Your task to perform on an android device: change the clock display to digital Image 0: 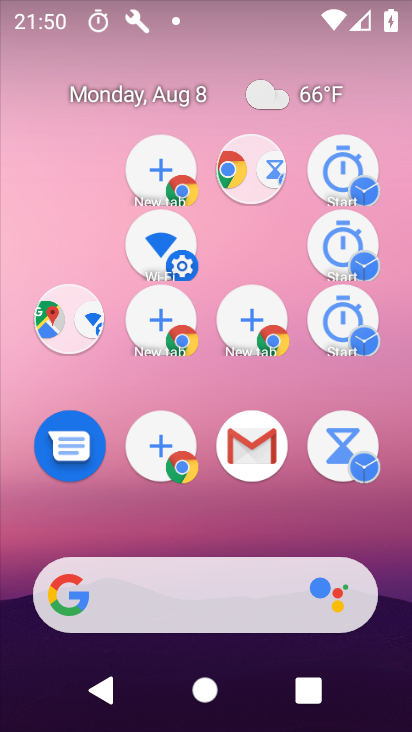
Step 0: click (239, 229)
Your task to perform on an android device: change the clock display to digital Image 1: 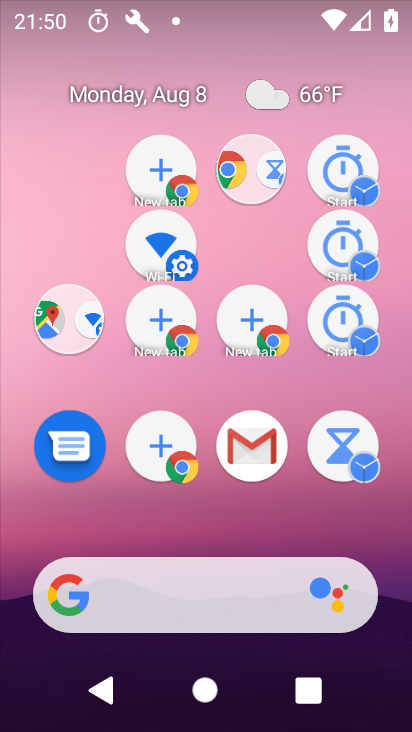
Step 1: drag from (266, 464) to (266, 202)
Your task to perform on an android device: change the clock display to digital Image 2: 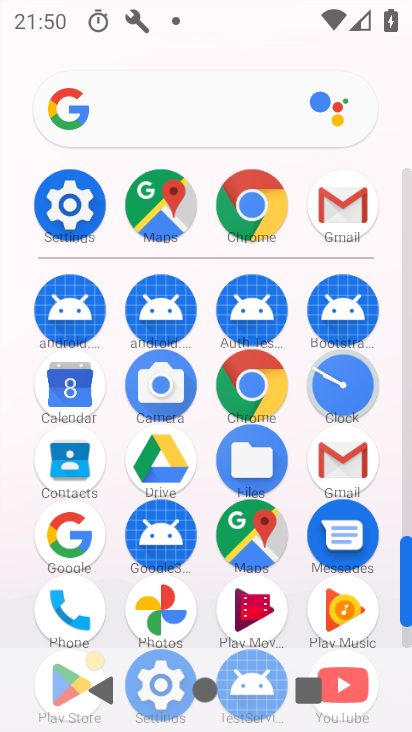
Step 2: click (70, 200)
Your task to perform on an android device: change the clock display to digital Image 3: 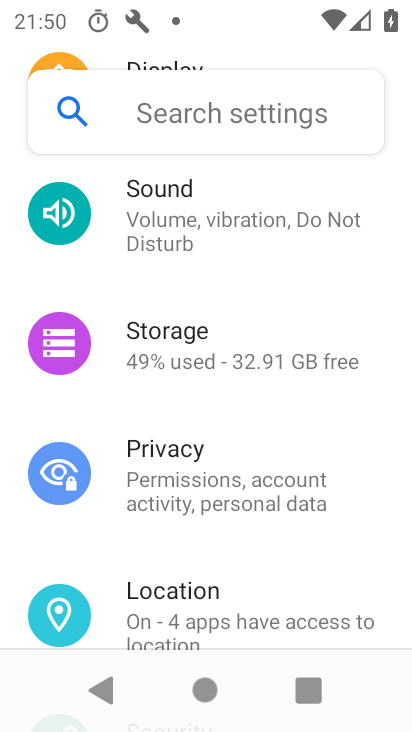
Step 3: press back button
Your task to perform on an android device: change the clock display to digital Image 4: 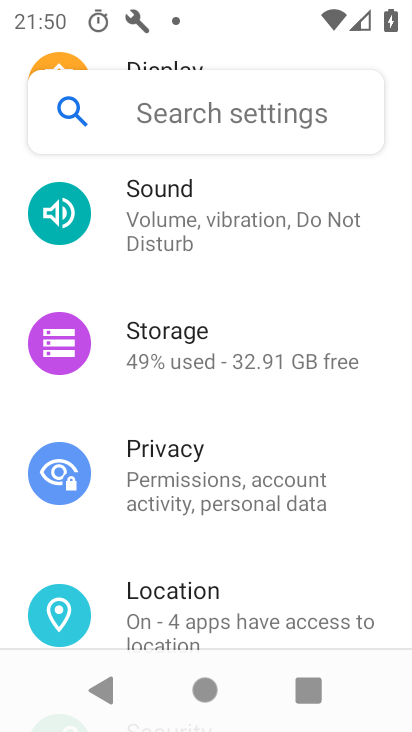
Step 4: press back button
Your task to perform on an android device: change the clock display to digital Image 5: 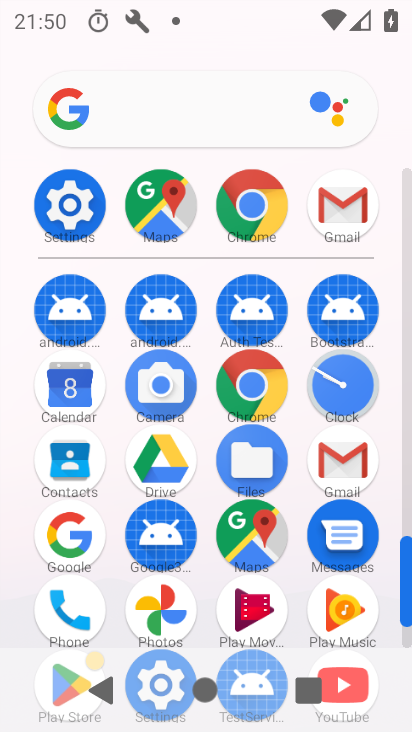
Step 5: press back button
Your task to perform on an android device: change the clock display to digital Image 6: 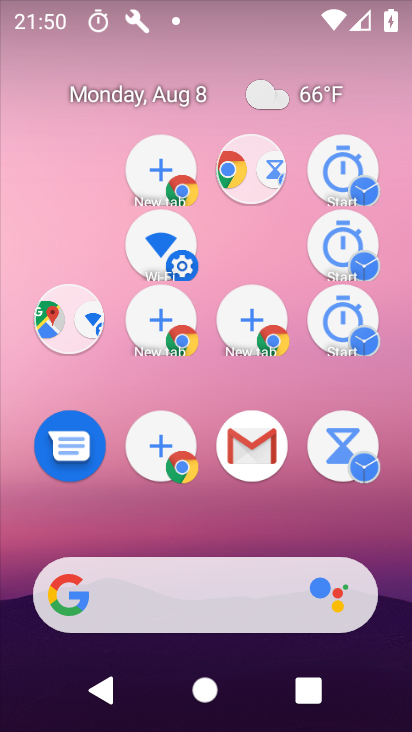
Step 6: drag from (195, 238) to (196, 166)
Your task to perform on an android device: change the clock display to digital Image 7: 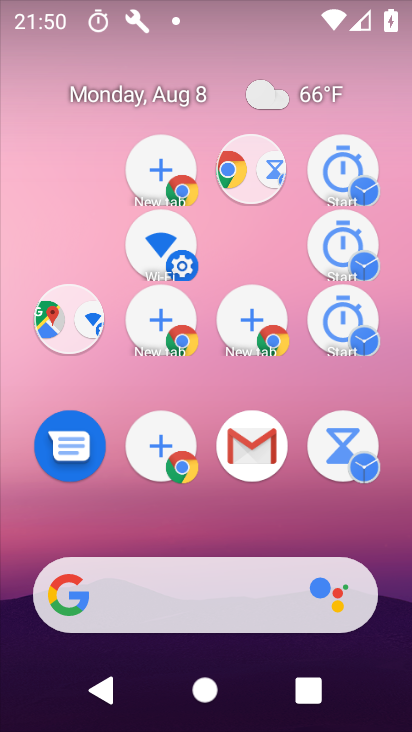
Step 7: drag from (225, 578) to (212, 237)
Your task to perform on an android device: change the clock display to digital Image 8: 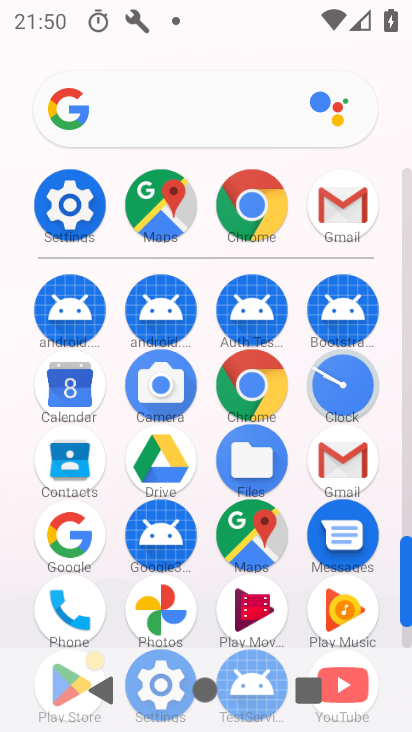
Step 8: drag from (267, 404) to (267, 297)
Your task to perform on an android device: change the clock display to digital Image 9: 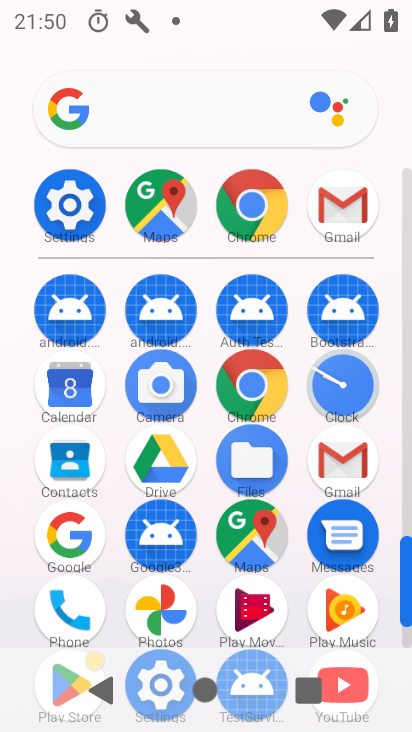
Step 9: click (342, 394)
Your task to perform on an android device: change the clock display to digital Image 10: 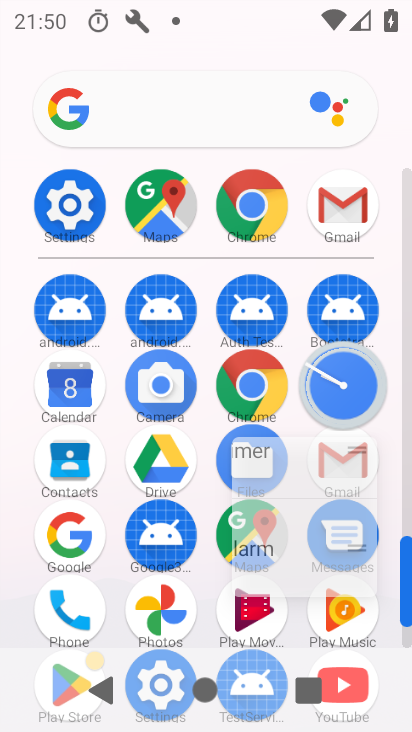
Step 10: click (341, 393)
Your task to perform on an android device: change the clock display to digital Image 11: 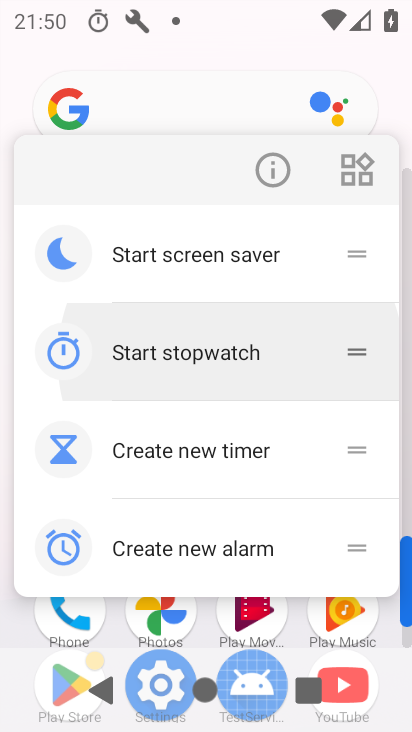
Step 11: click (340, 394)
Your task to perform on an android device: change the clock display to digital Image 12: 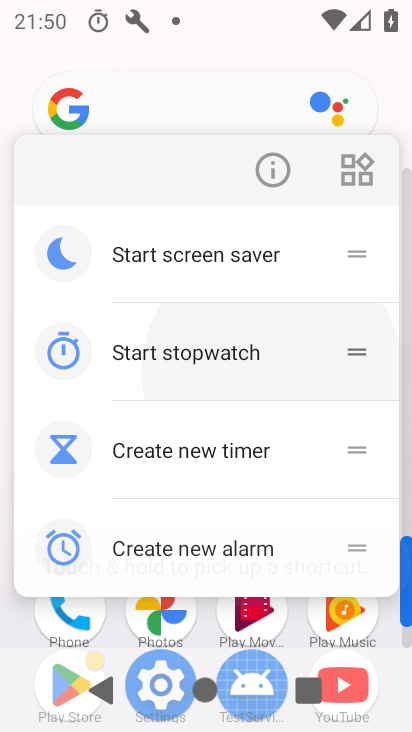
Step 12: click (341, 395)
Your task to perform on an android device: change the clock display to digital Image 13: 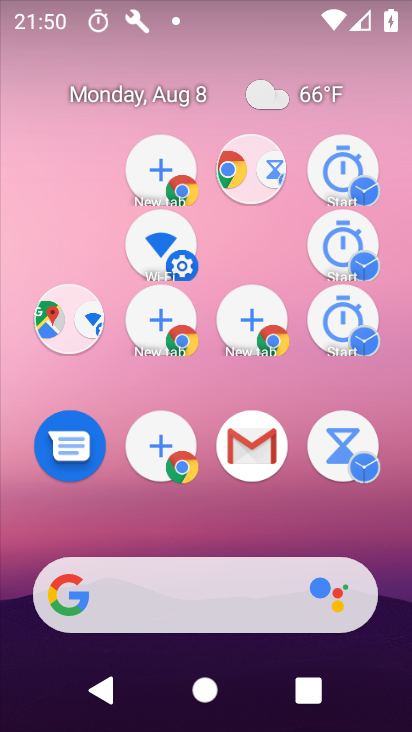
Step 13: drag from (205, 489) to (172, 236)
Your task to perform on an android device: change the clock display to digital Image 14: 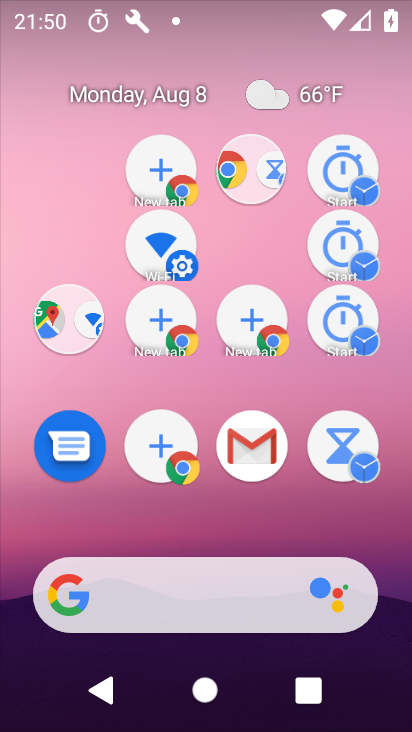
Step 14: drag from (188, 480) to (180, 183)
Your task to perform on an android device: change the clock display to digital Image 15: 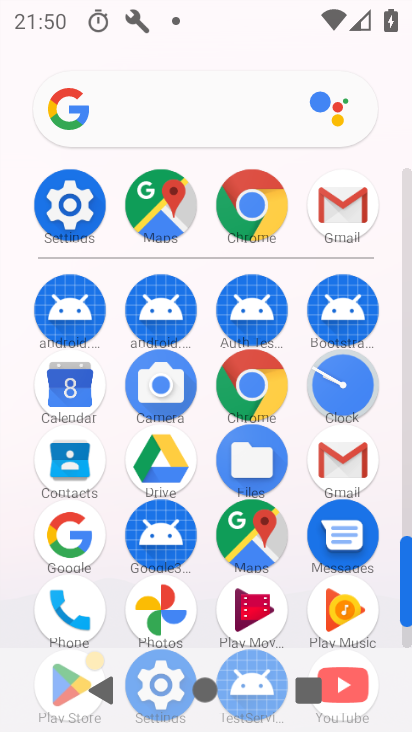
Step 15: click (345, 382)
Your task to perform on an android device: change the clock display to digital Image 16: 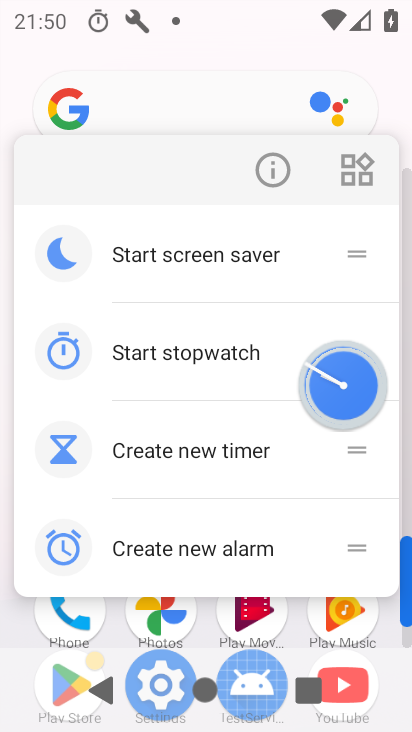
Step 16: click (345, 382)
Your task to perform on an android device: change the clock display to digital Image 17: 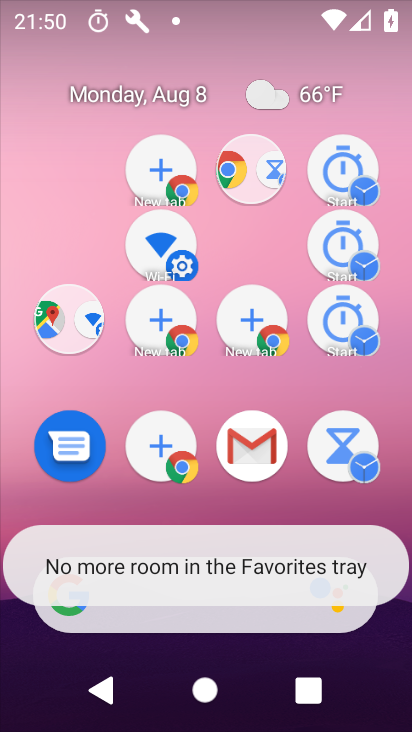
Step 17: drag from (203, 430) to (163, 147)
Your task to perform on an android device: change the clock display to digital Image 18: 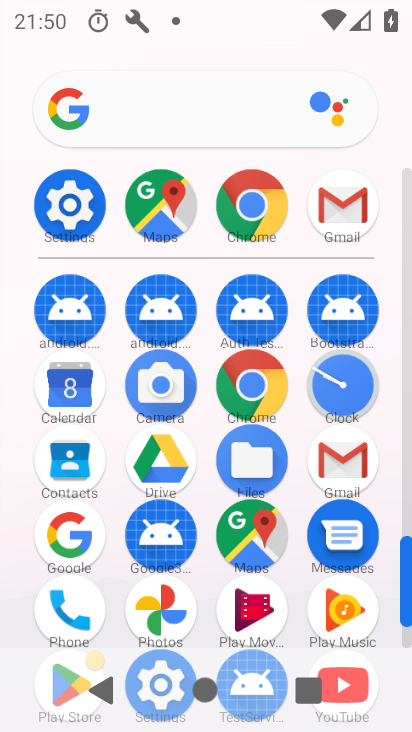
Step 18: drag from (201, 590) to (198, 273)
Your task to perform on an android device: change the clock display to digital Image 19: 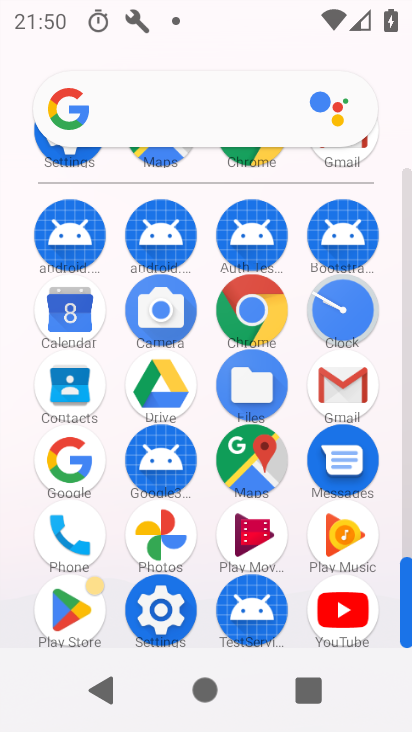
Step 19: click (336, 303)
Your task to perform on an android device: change the clock display to digital Image 20: 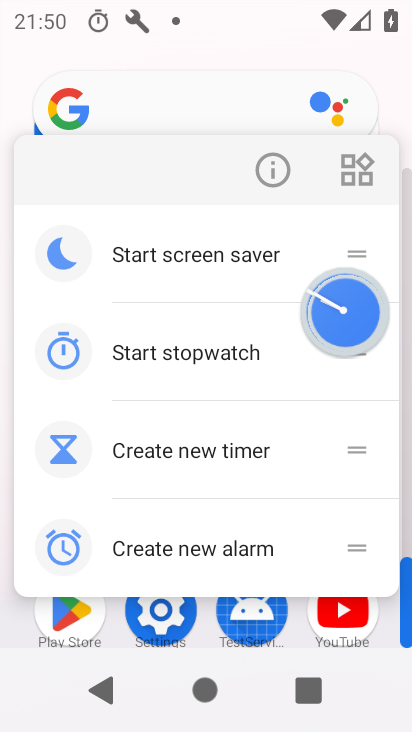
Step 20: click (341, 308)
Your task to perform on an android device: change the clock display to digital Image 21: 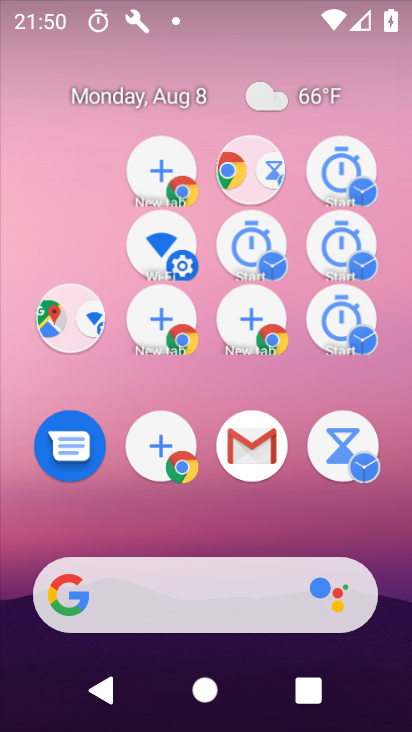
Step 21: drag from (203, 554) to (209, 257)
Your task to perform on an android device: change the clock display to digital Image 22: 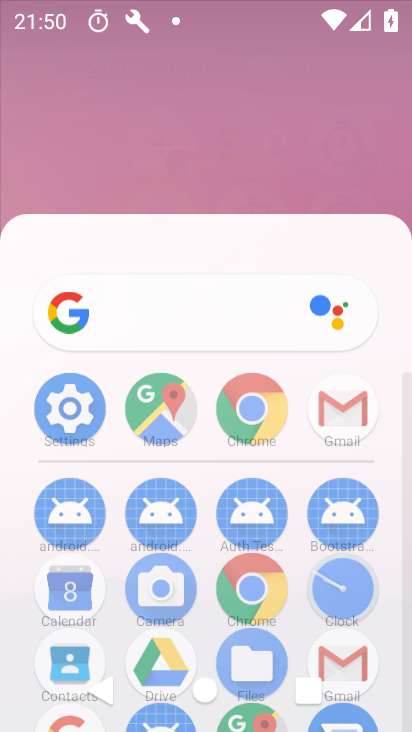
Step 22: drag from (243, 464) to (207, 123)
Your task to perform on an android device: change the clock display to digital Image 23: 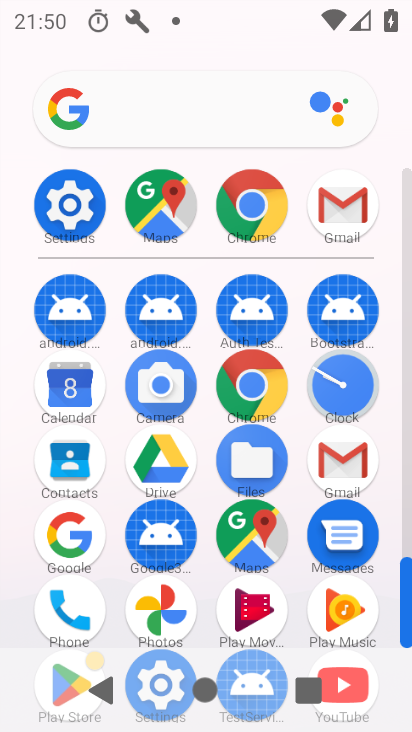
Step 23: drag from (200, 478) to (177, 105)
Your task to perform on an android device: change the clock display to digital Image 24: 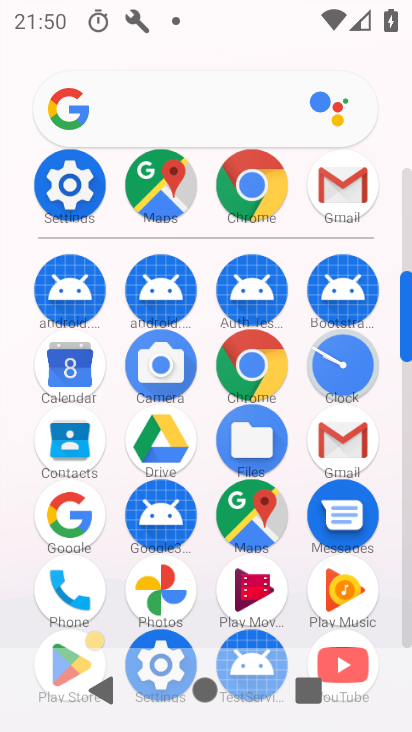
Step 24: click (338, 384)
Your task to perform on an android device: change the clock display to digital Image 25: 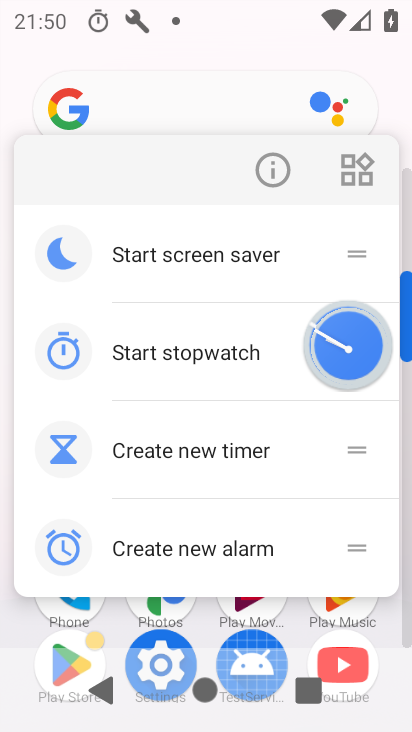
Step 25: click (347, 359)
Your task to perform on an android device: change the clock display to digital Image 26: 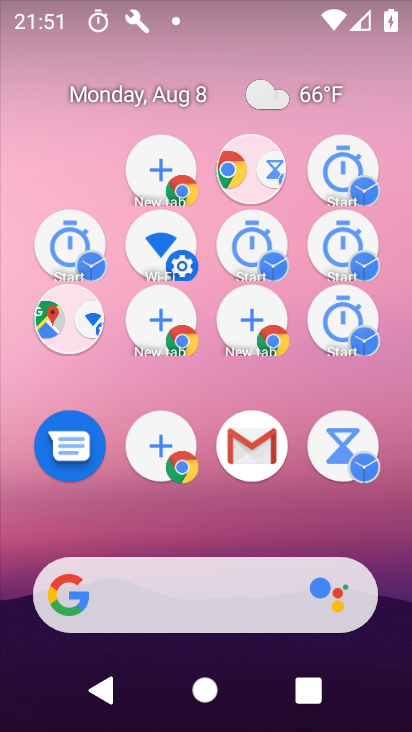
Step 26: drag from (252, 573) to (229, 237)
Your task to perform on an android device: change the clock display to digital Image 27: 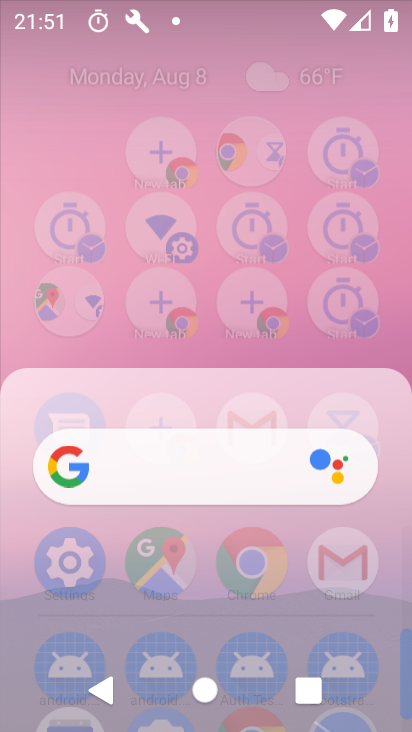
Step 27: drag from (226, 468) to (208, 202)
Your task to perform on an android device: change the clock display to digital Image 28: 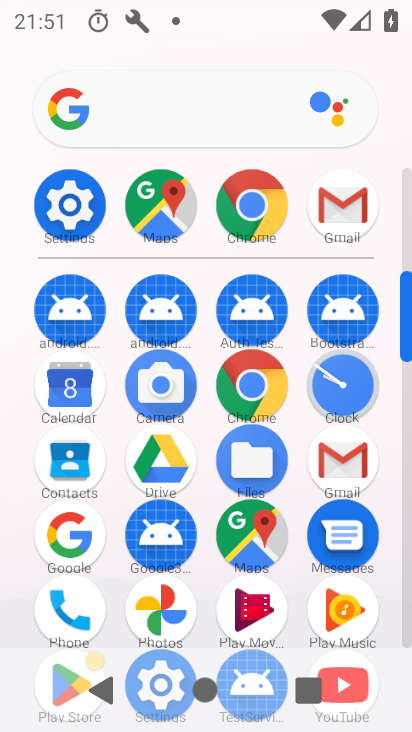
Step 28: click (347, 378)
Your task to perform on an android device: change the clock display to digital Image 29: 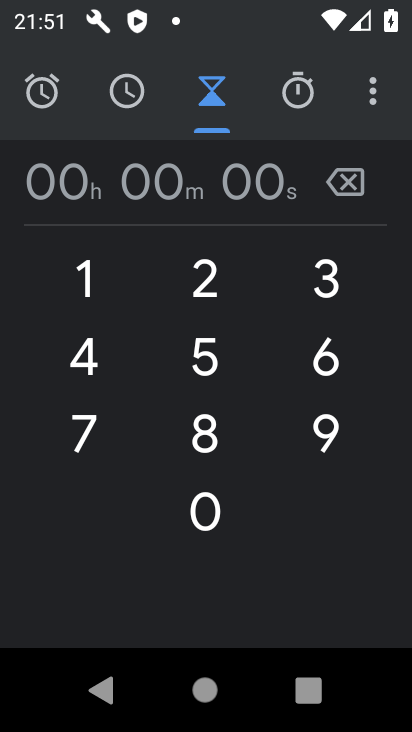
Step 29: click (368, 97)
Your task to perform on an android device: change the clock display to digital Image 30: 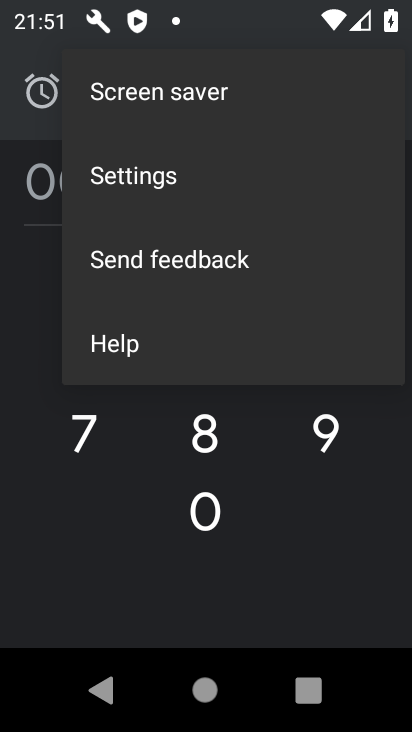
Step 30: click (119, 183)
Your task to perform on an android device: change the clock display to digital Image 31: 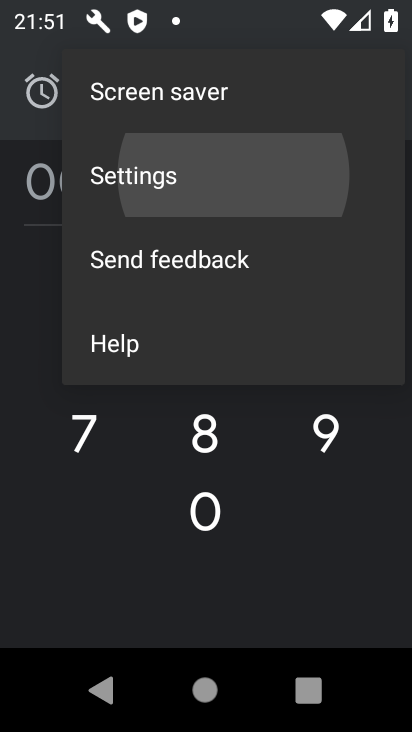
Step 31: click (118, 183)
Your task to perform on an android device: change the clock display to digital Image 32: 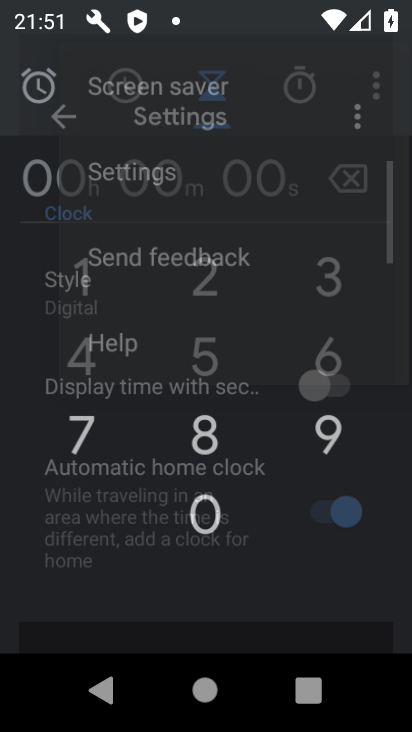
Step 32: click (116, 185)
Your task to perform on an android device: change the clock display to digital Image 33: 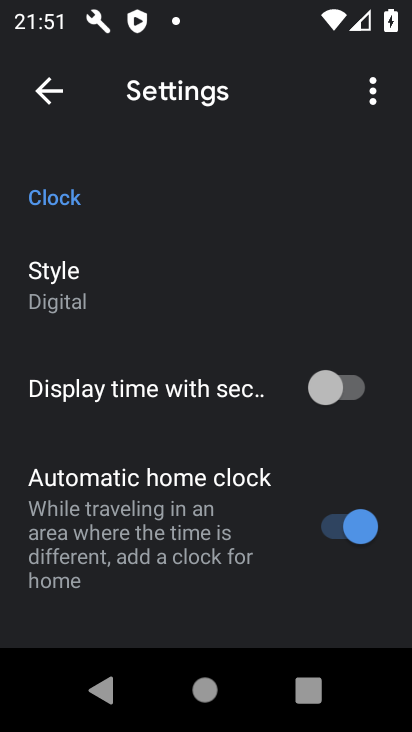
Step 33: task complete